Your task to perform on an android device: open app "Indeed Job Search" (install if not already installed), go to login, and select forgot password Image 0: 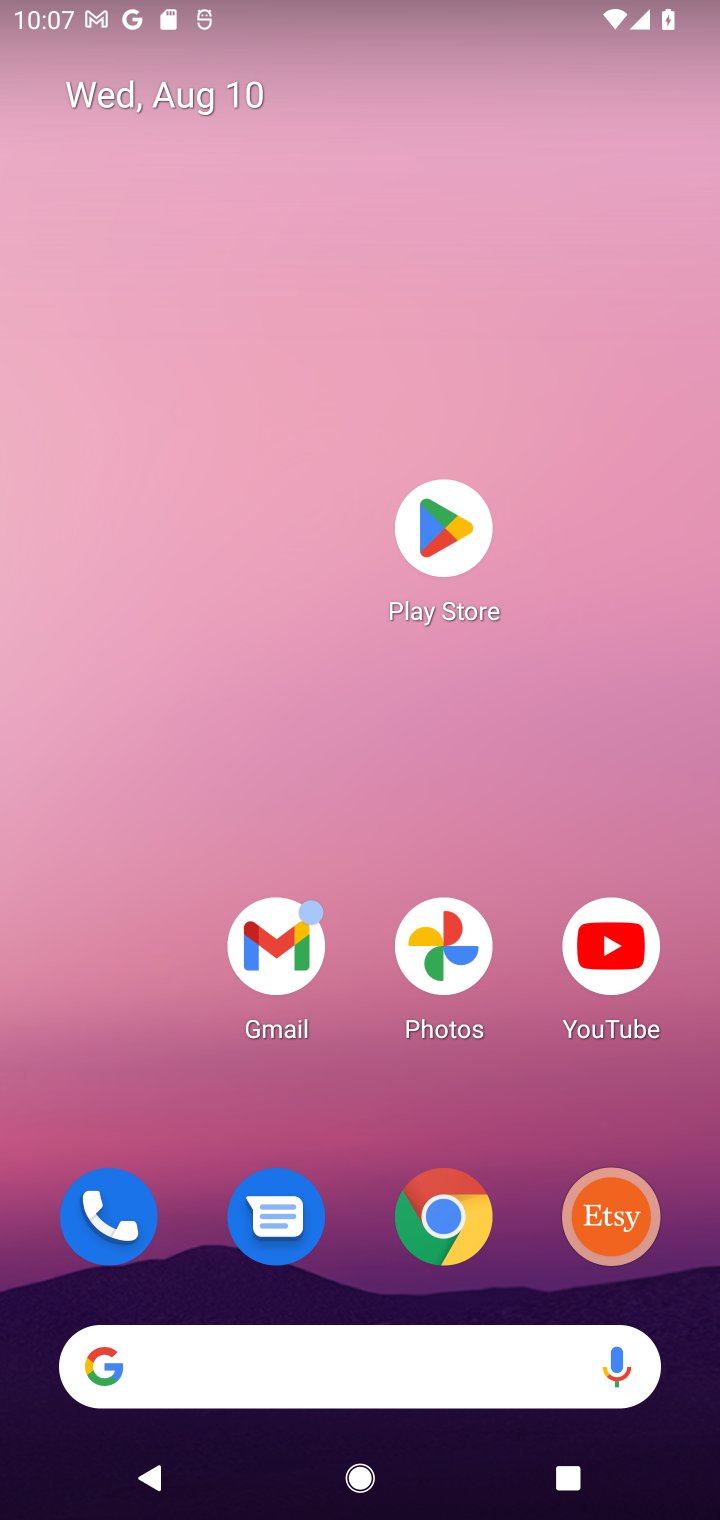
Step 0: click (453, 519)
Your task to perform on an android device: open app "Indeed Job Search" (install if not already installed), go to login, and select forgot password Image 1: 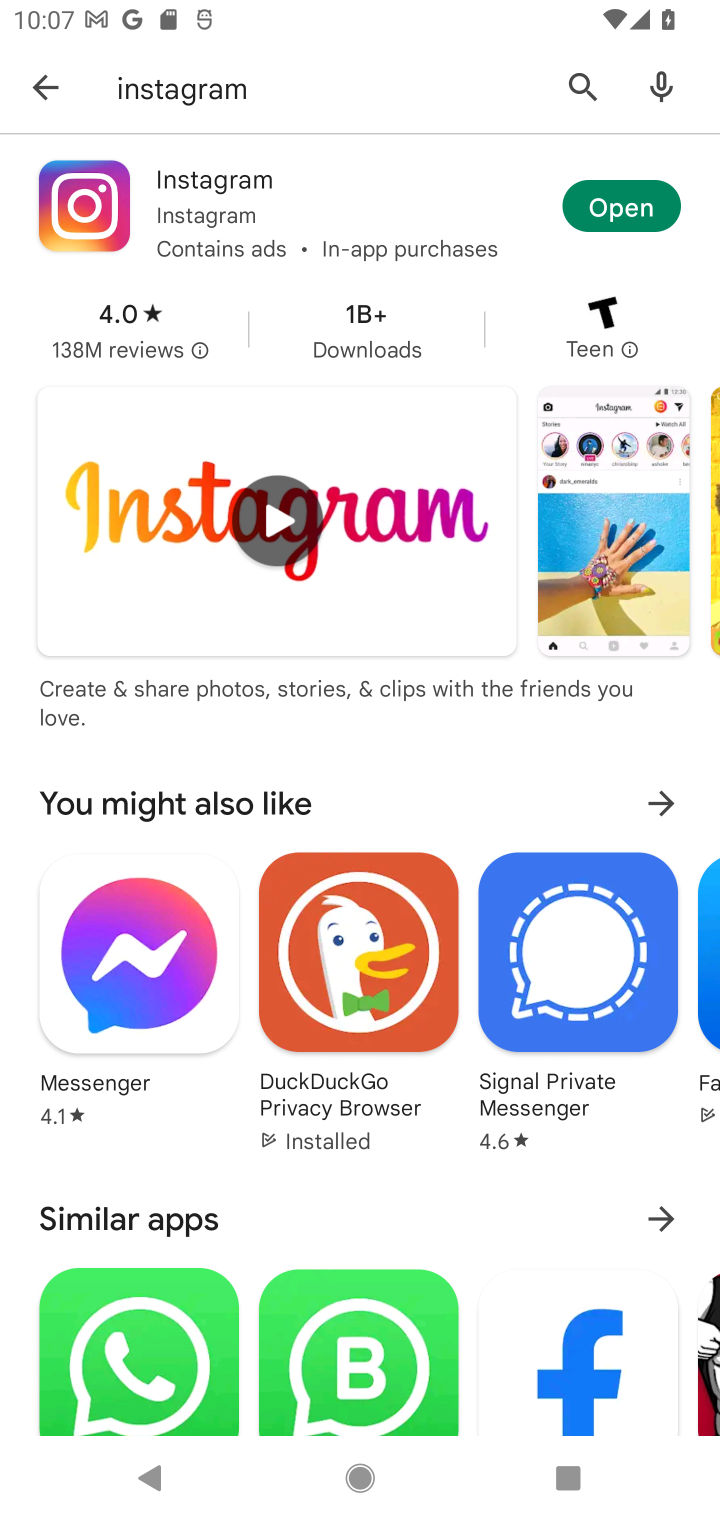
Step 1: click (572, 87)
Your task to perform on an android device: open app "Indeed Job Search" (install if not already installed), go to login, and select forgot password Image 2: 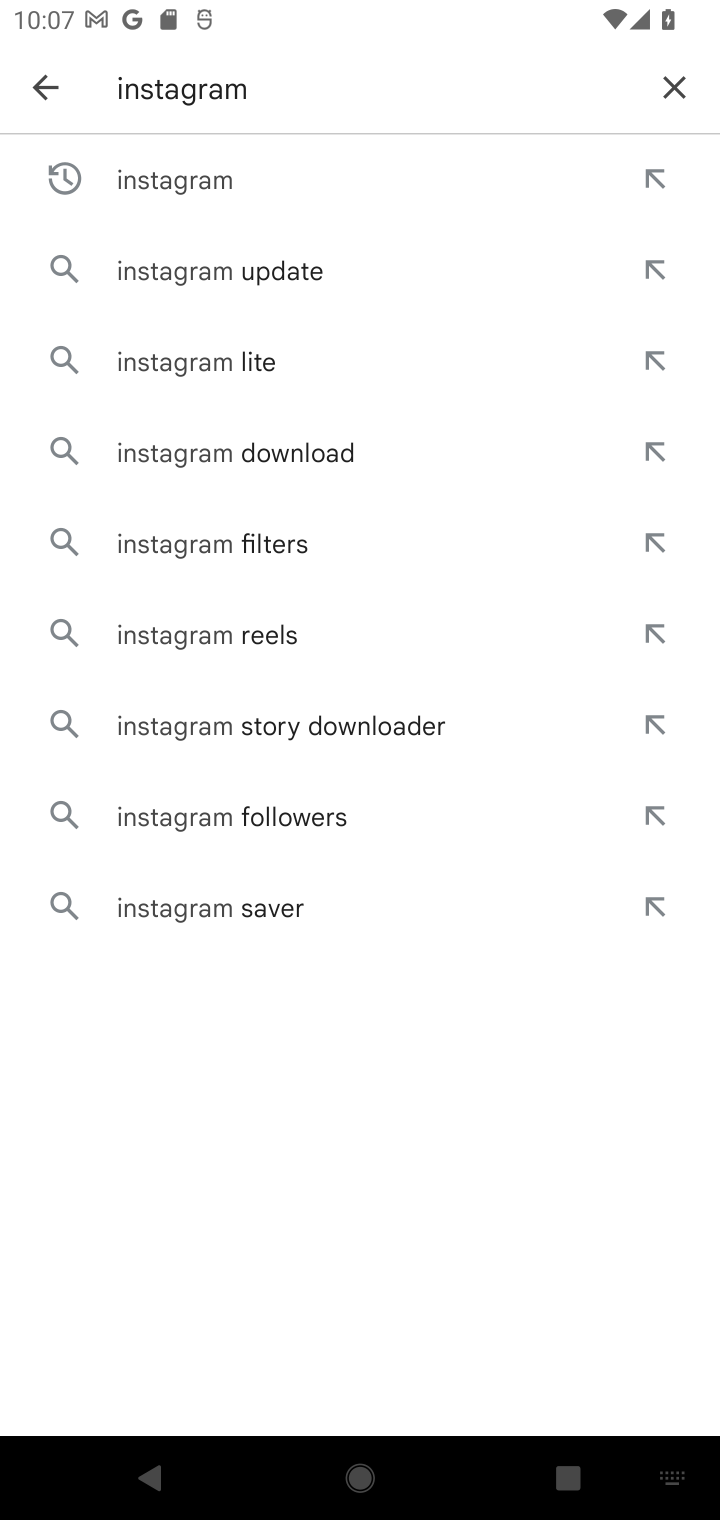
Step 2: click (675, 83)
Your task to perform on an android device: open app "Indeed Job Search" (install if not already installed), go to login, and select forgot password Image 3: 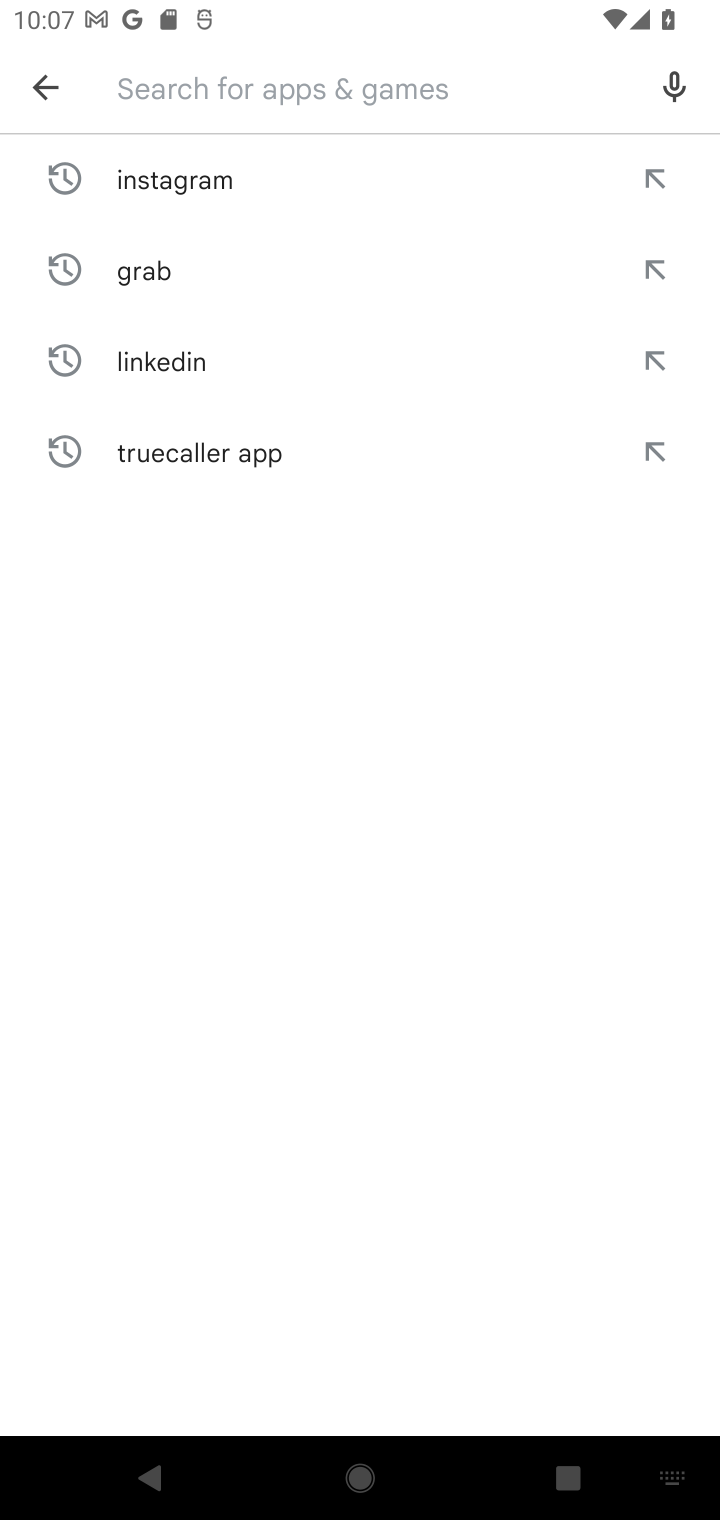
Step 3: type "Indeed Job Search"
Your task to perform on an android device: open app "Indeed Job Search" (install if not already installed), go to login, and select forgot password Image 4: 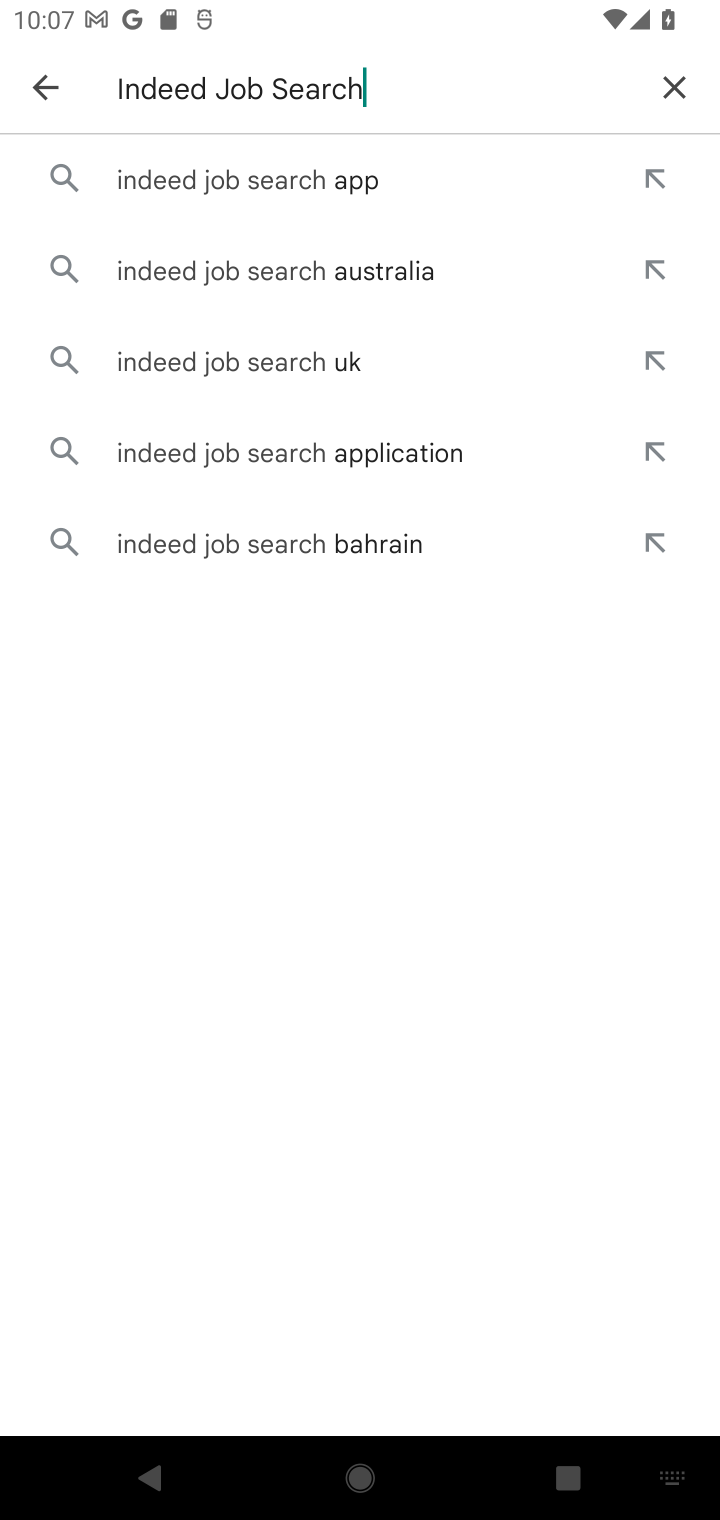
Step 4: click (277, 183)
Your task to perform on an android device: open app "Indeed Job Search" (install if not already installed), go to login, and select forgot password Image 5: 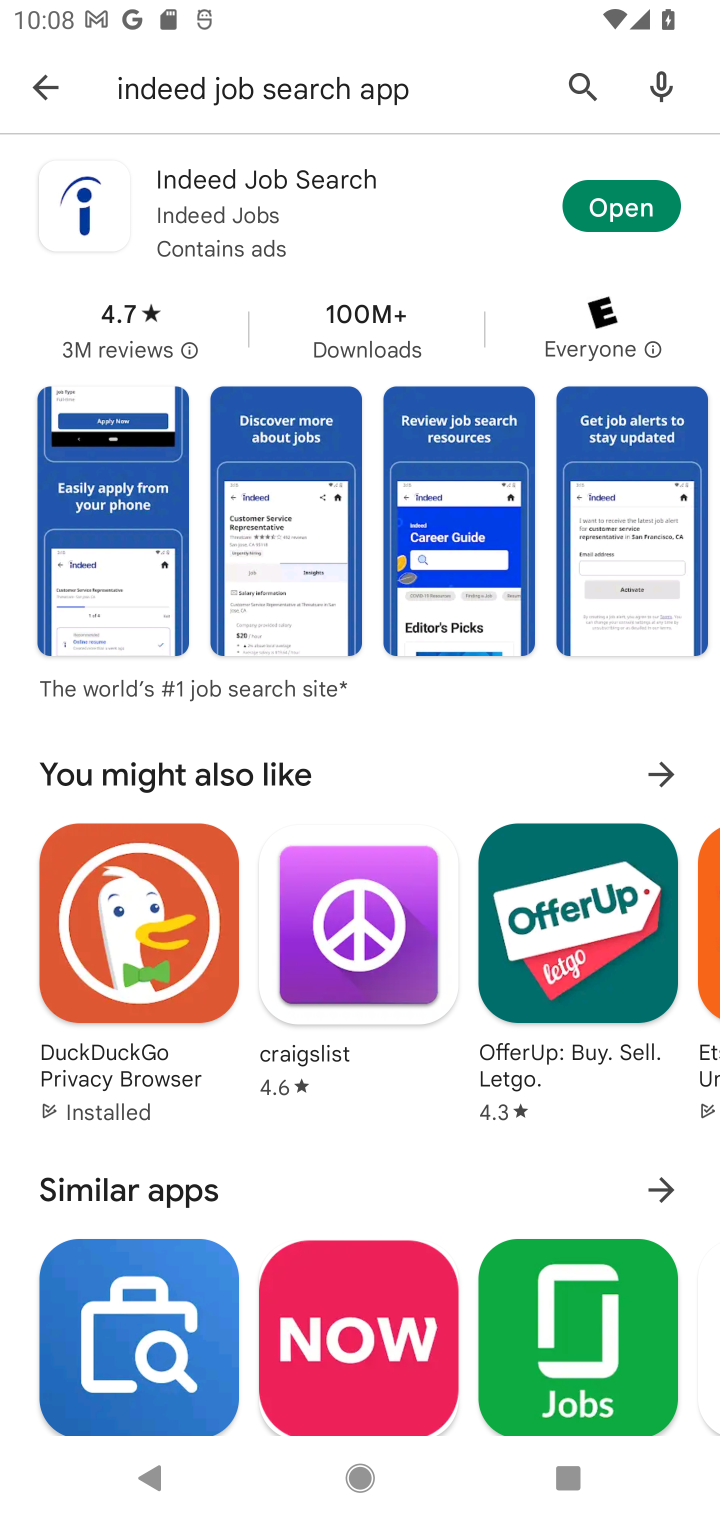
Step 5: click (587, 197)
Your task to perform on an android device: open app "Indeed Job Search" (install if not already installed), go to login, and select forgot password Image 6: 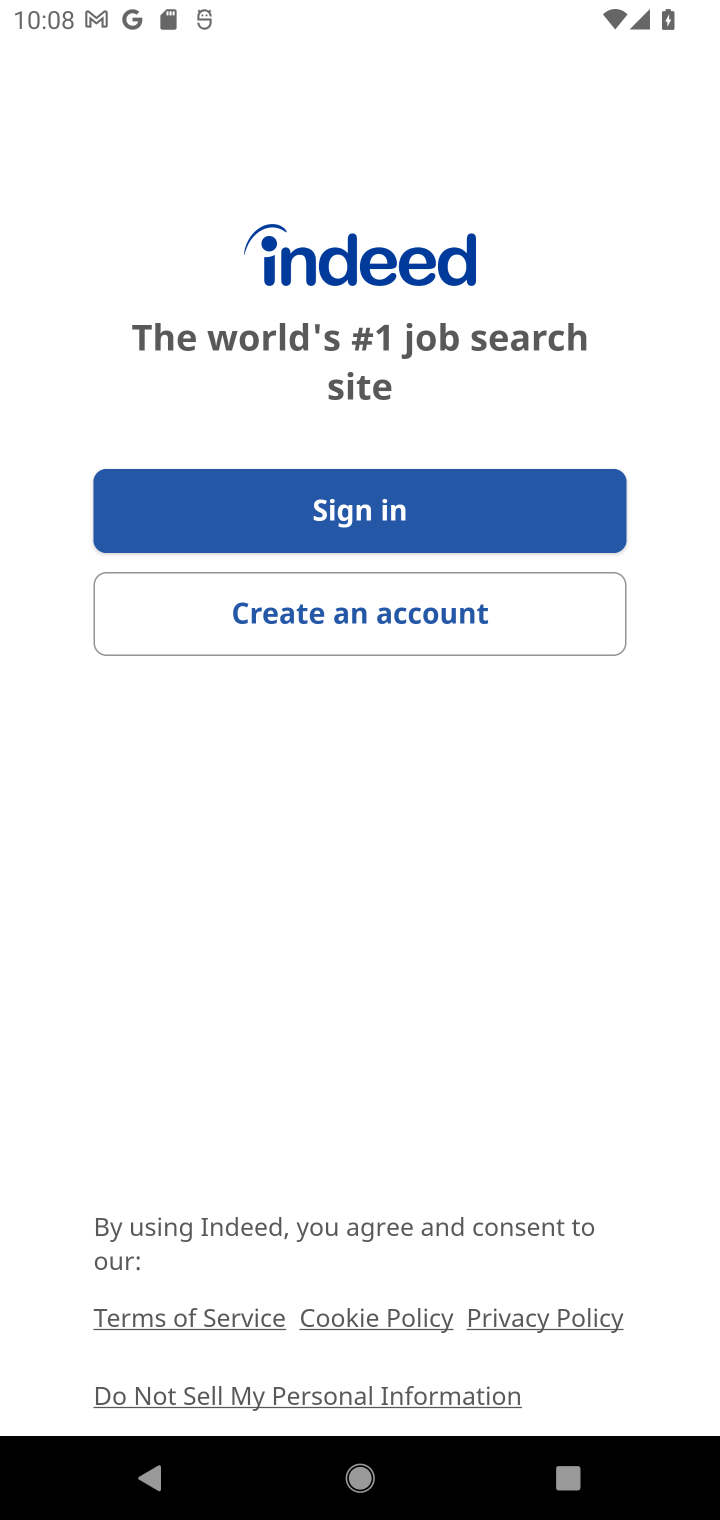
Step 6: click (372, 512)
Your task to perform on an android device: open app "Indeed Job Search" (install if not already installed), go to login, and select forgot password Image 7: 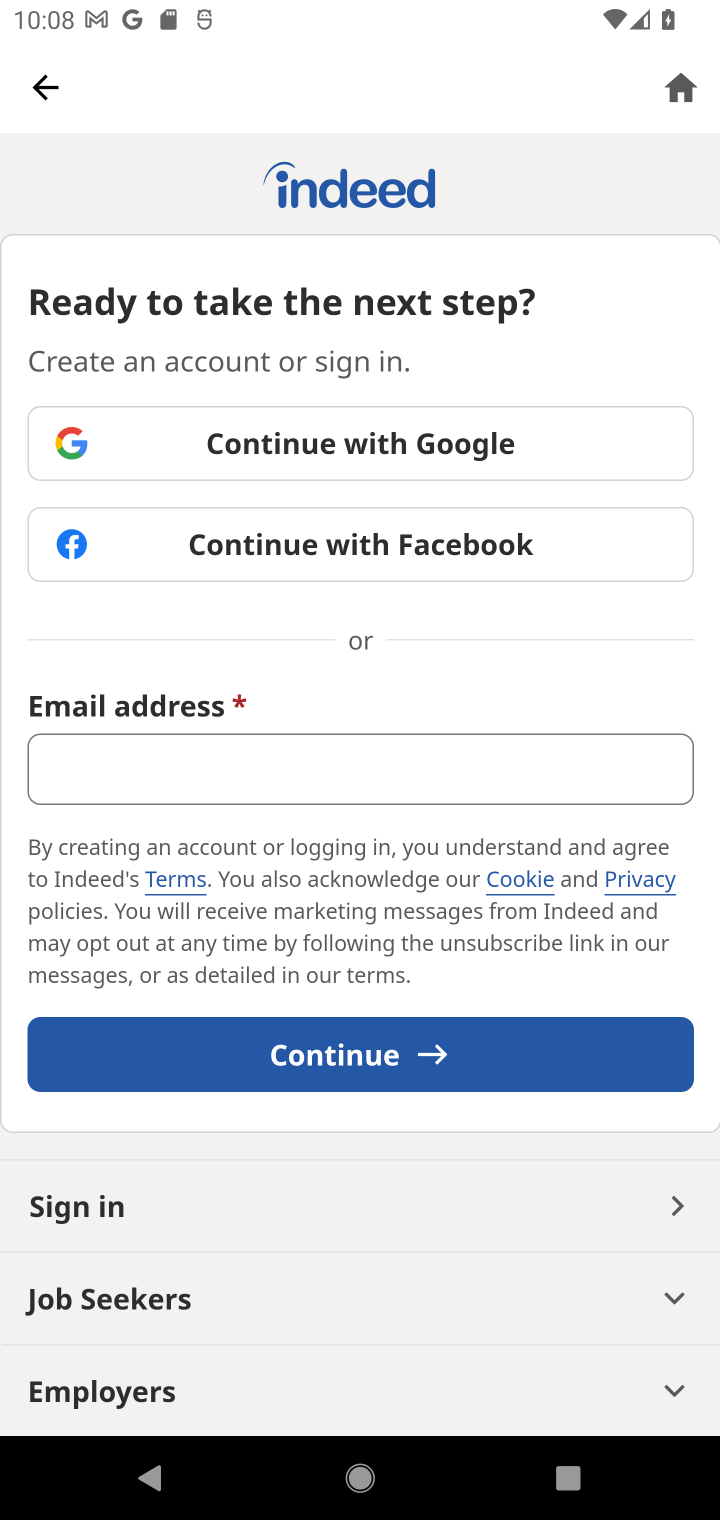
Step 7: task complete